Your task to perform on an android device: turn on airplane mode Image 0: 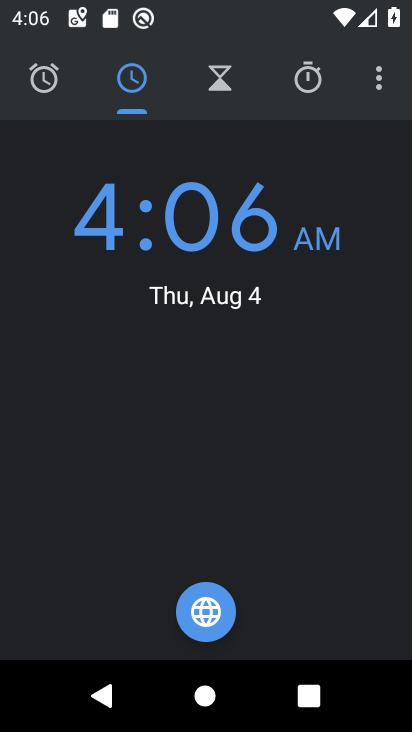
Step 0: press back button
Your task to perform on an android device: turn on airplane mode Image 1: 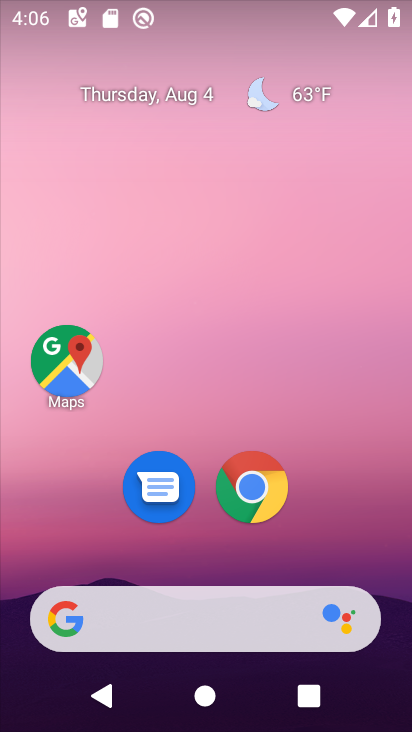
Step 1: drag from (350, 10) to (218, 668)
Your task to perform on an android device: turn on airplane mode Image 2: 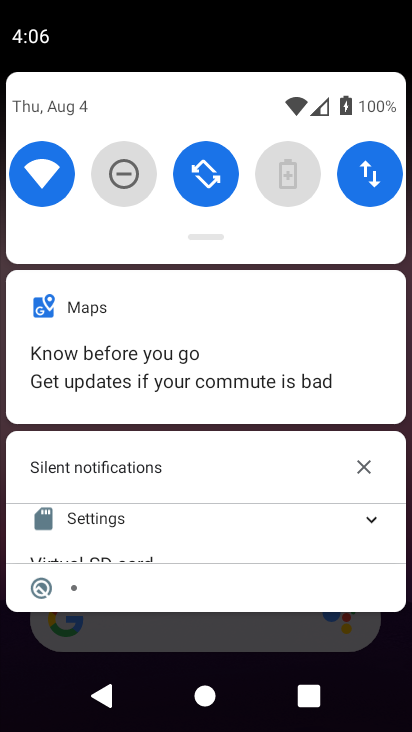
Step 2: drag from (206, 293) to (157, 731)
Your task to perform on an android device: turn on airplane mode Image 3: 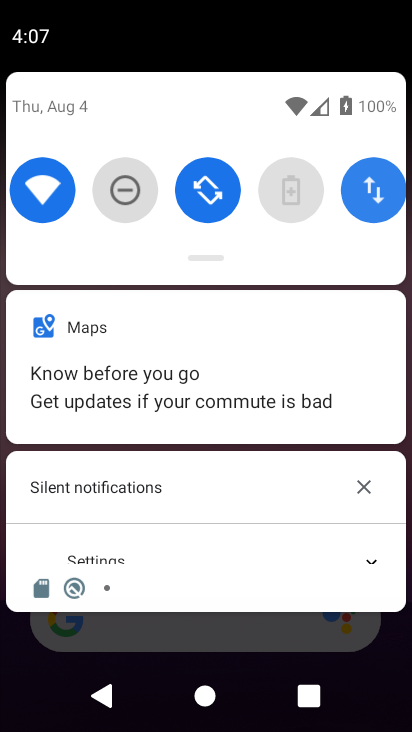
Step 3: drag from (343, 275) to (1, 305)
Your task to perform on an android device: turn on airplane mode Image 4: 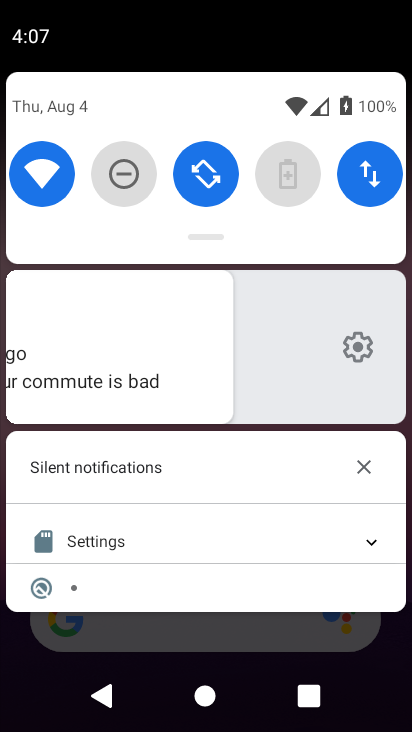
Step 4: drag from (384, 172) to (2, 183)
Your task to perform on an android device: turn on airplane mode Image 5: 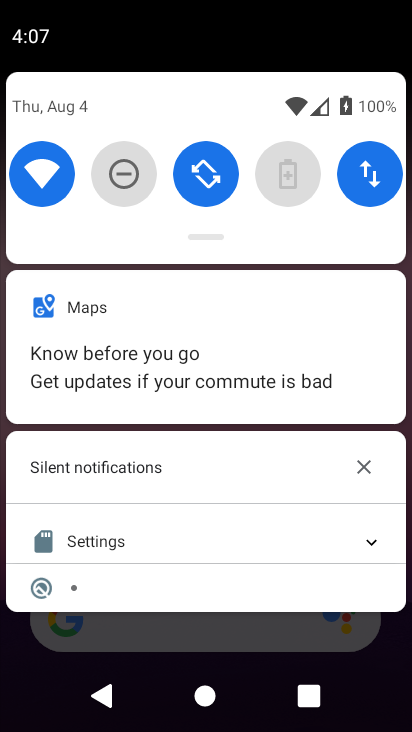
Step 5: drag from (210, 249) to (177, 673)
Your task to perform on an android device: turn on airplane mode Image 6: 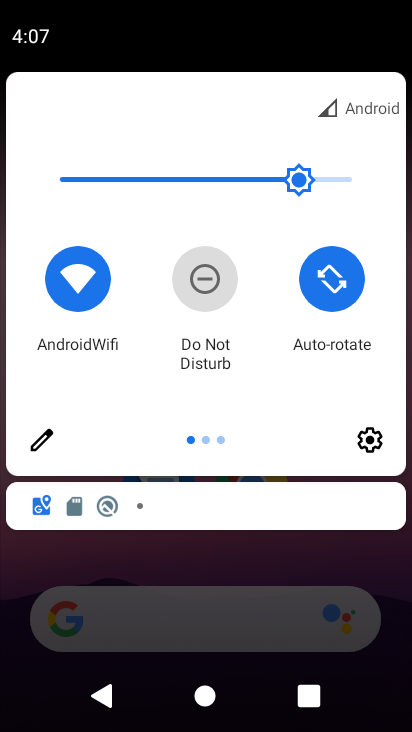
Step 6: drag from (328, 278) to (1, 285)
Your task to perform on an android device: turn on airplane mode Image 7: 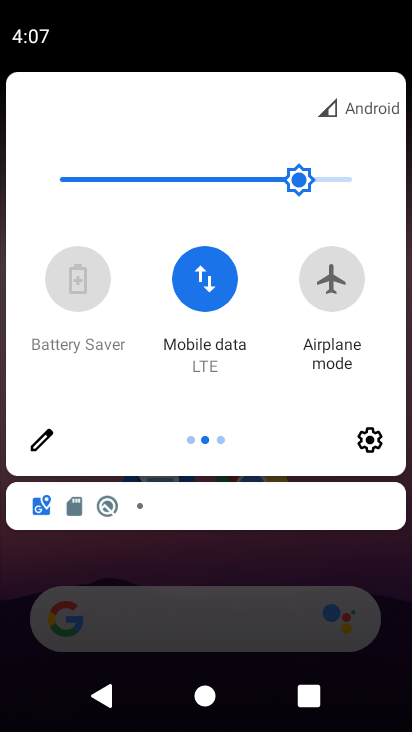
Step 7: click (337, 270)
Your task to perform on an android device: turn on airplane mode Image 8: 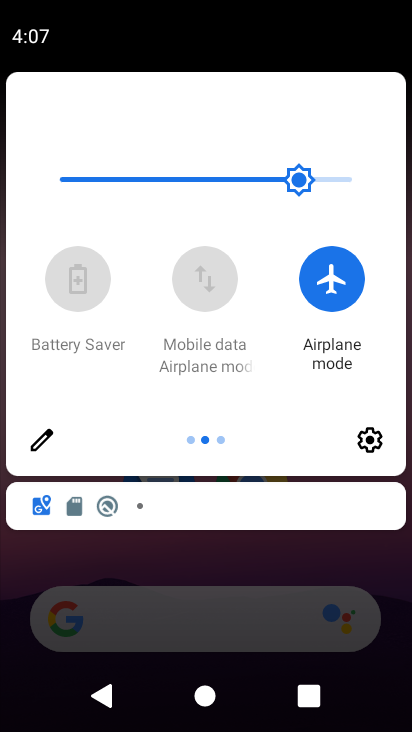
Step 8: task complete